Your task to perform on an android device: Open the map Image 0: 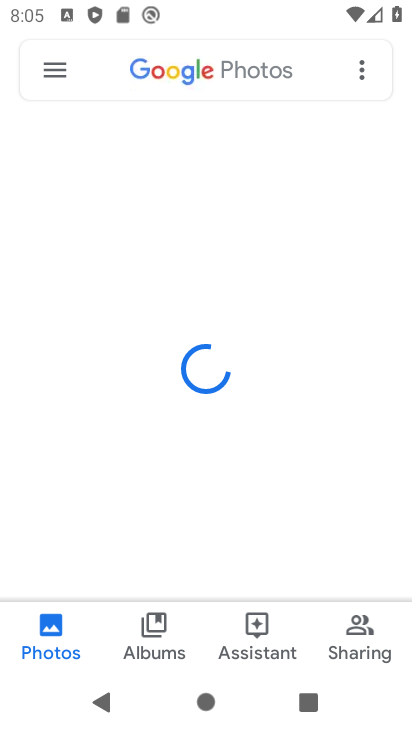
Step 0: press home button
Your task to perform on an android device: Open the map Image 1: 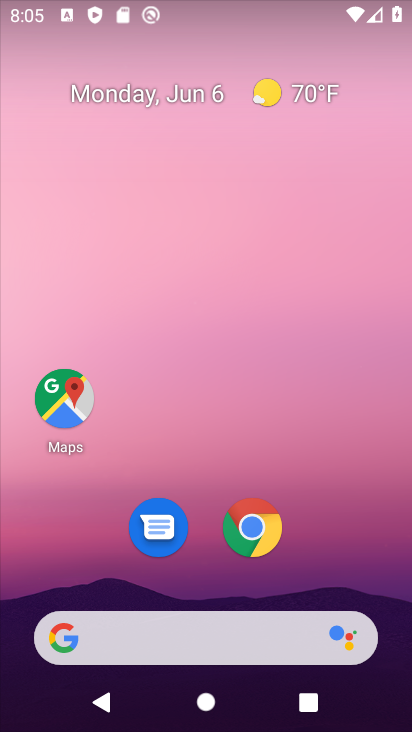
Step 1: drag from (185, 556) to (234, 227)
Your task to perform on an android device: Open the map Image 2: 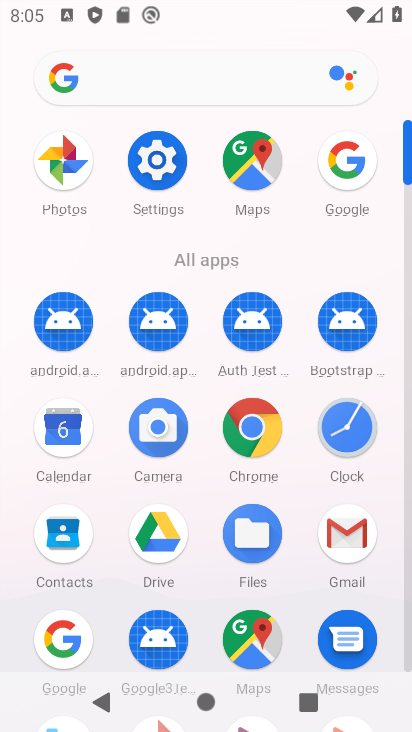
Step 2: click (249, 193)
Your task to perform on an android device: Open the map Image 3: 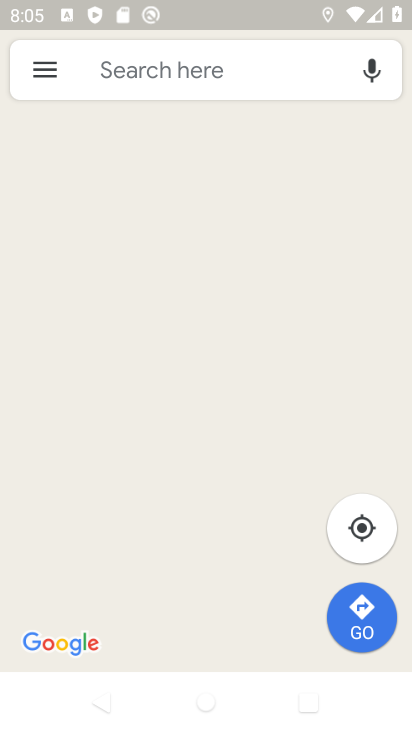
Step 3: click (196, 86)
Your task to perform on an android device: Open the map Image 4: 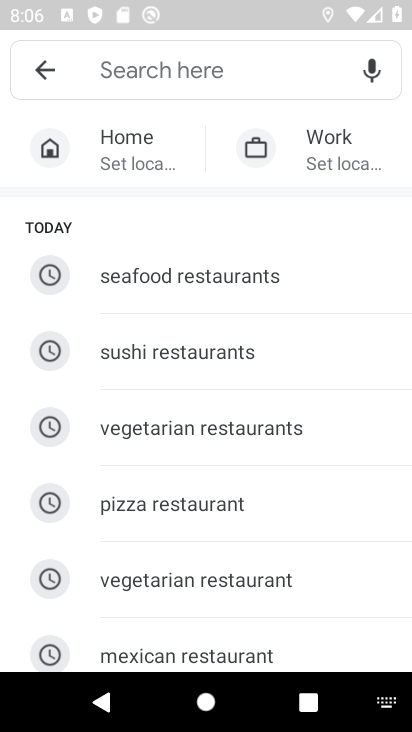
Step 4: task complete